Your task to perform on an android device: Open Youtube and go to "Your channel" Image 0: 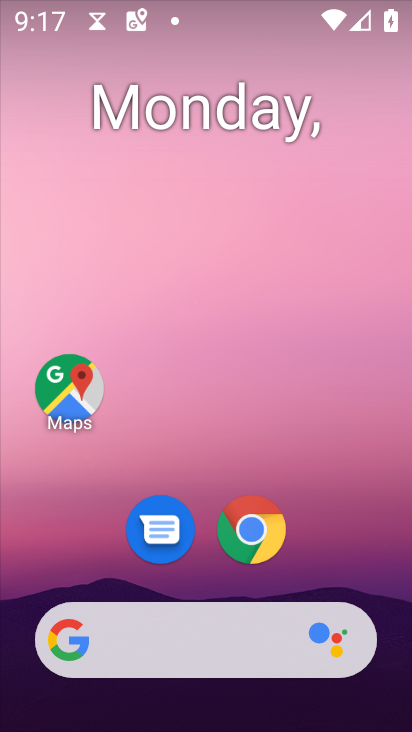
Step 0: drag from (273, 653) to (273, 106)
Your task to perform on an android device: Open Youtube and go to "Your channel" Image 1: 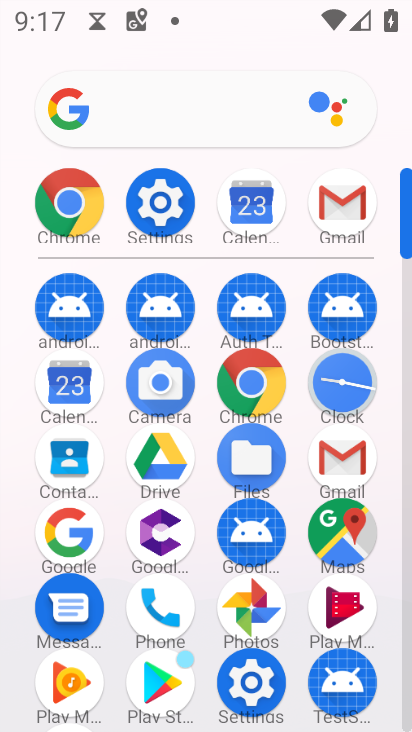
Step 1: drag from (280, 561) to (280, 180)
Your task to perform on an android device: Open Youtube and go to "Your channel" Image 2: 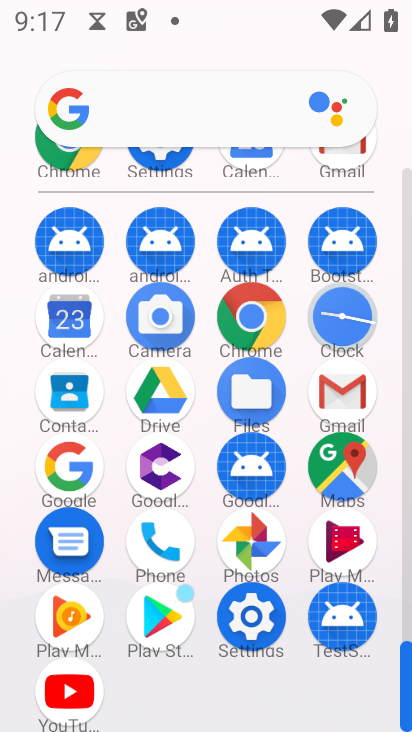
Step 2: drag from (300, 611) to (288, 246)
Your task to perform on an android device: Open Youtube and go to "Your channel" Image 3: 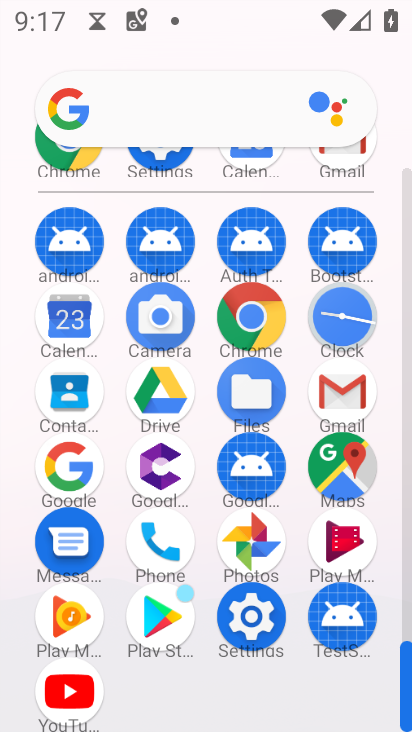
Step 3: click (65, 678)
Your task to perform on an android device: Open Youtube and go to "Your channel" Image 4: 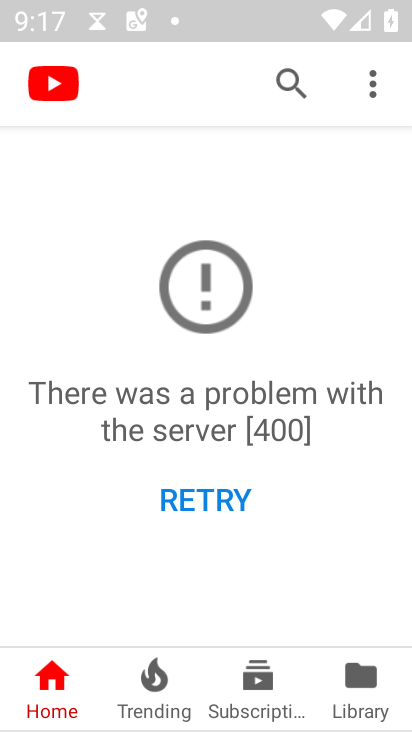
Step 4: task complete